Your task to perform on an android device: Open Google Maps and go to "Timeline" Image 0: 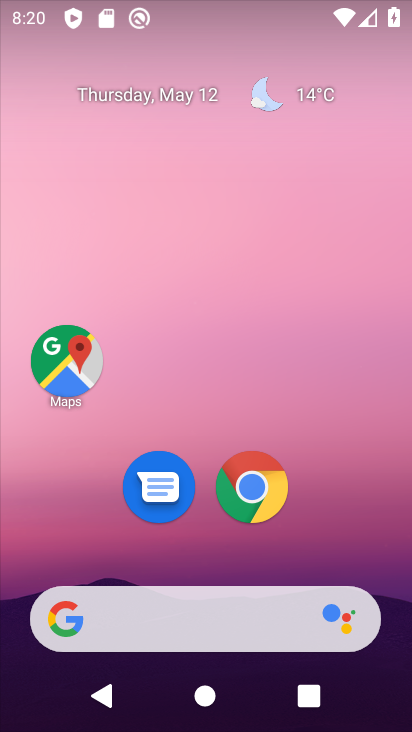
Step 0: click (69, 364)
Your task to perform on an android device: Open Google Maps and go to "Timeline" Image 1: 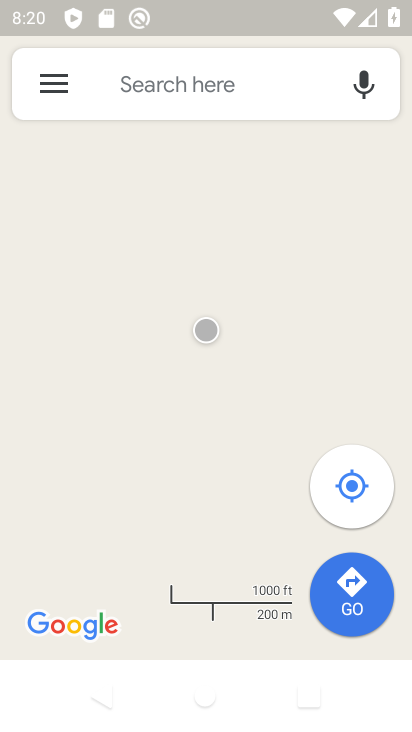
Step 1: click (56, 84)
Your task to perform on an android device: Open Google Maps and go to "Timeline" Image 2: 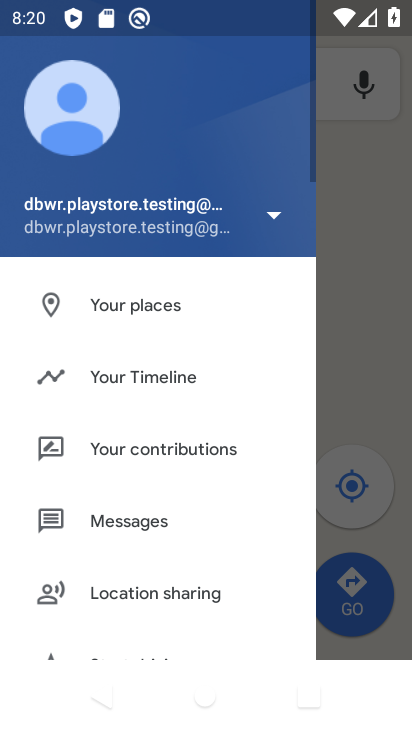
Step 2: click (152, 374)
Your task to perform on an android device: Open Google Maps and go to "Timeline" Image 3: 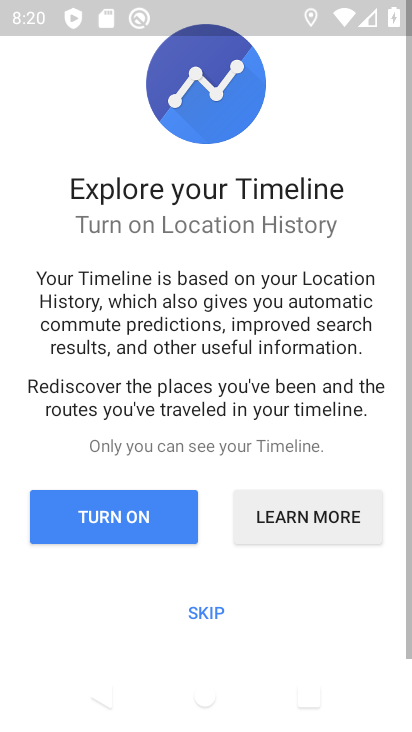
Step 3: click (218, 606)
Your task to perform on an android device: Open Google Maps and go to "Timeline" Image 4: 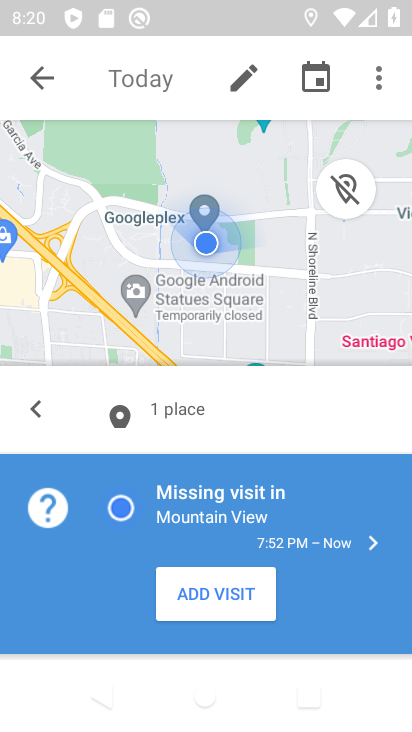
Step 4: task complete